Your task to perform on an android device: What is the speed of a bicycle? Image 0: 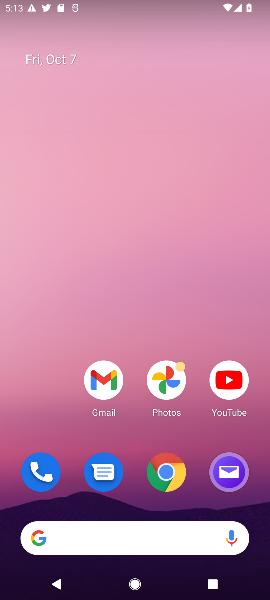
Step 0: click (150, 470)
Your task to perform on an android device: What is the speed of a bicycle? Image 1: 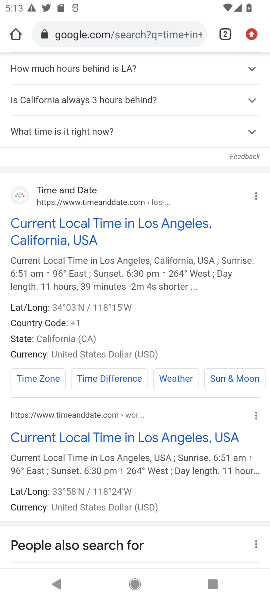
Step 1: click (101, 34)
Your task to perform on an android device: What is the speed of a bicycle? Image 2: 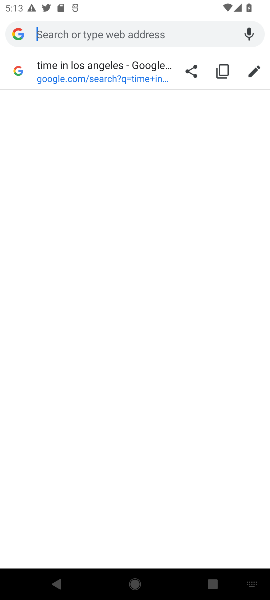
Step 2: type "speed of a bicycle"
Your task to perform on an android device: What is the speed of a bicycle? Image 3: 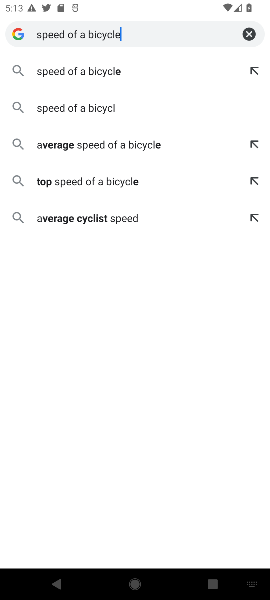
Step 3: type ""
Your task to perform on an android device: What is the speed of a bicycle? Image 4: 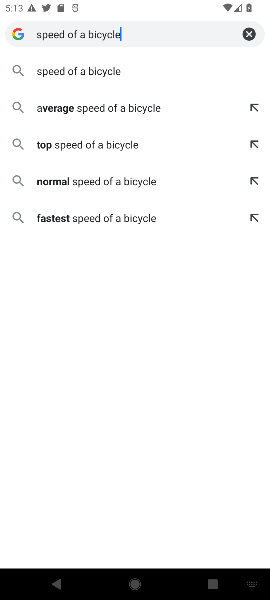
Step 4: click (109, 76)
Your task to perform on an android device: What is the speed of a bicycle? Image 5: 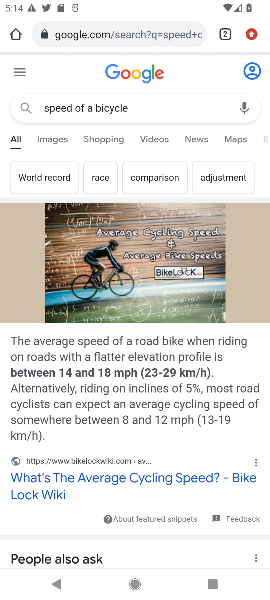
Step 5: drag from (158, 376) to (187, 306)
Your task to perform on an android device: What is the speed of a bicycle? Image 6: 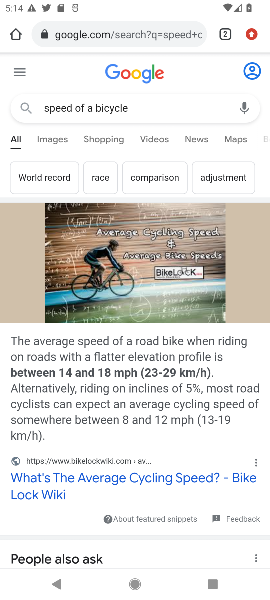
Step 6: click (113, 372)
Your task to perform on an android device: What is the speed of a bicycle? Image 7: 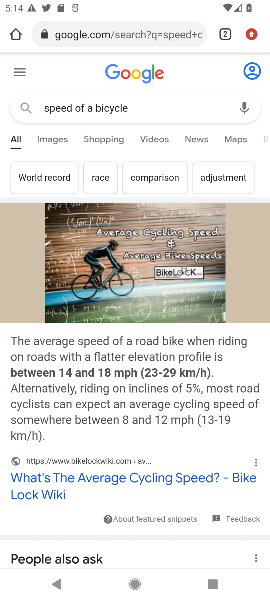
Step 7: task complete